Your task to perform on an android device: open sync settings in chrome Image 0: 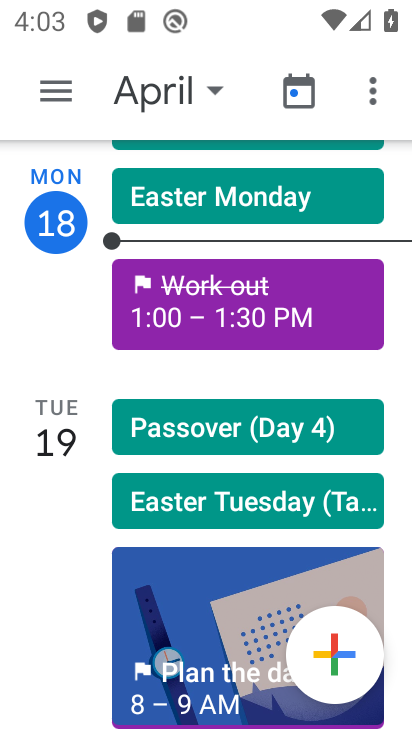
Step 0: press home button
Your task to perform on an android device: open sync settings in chrome Image 1: 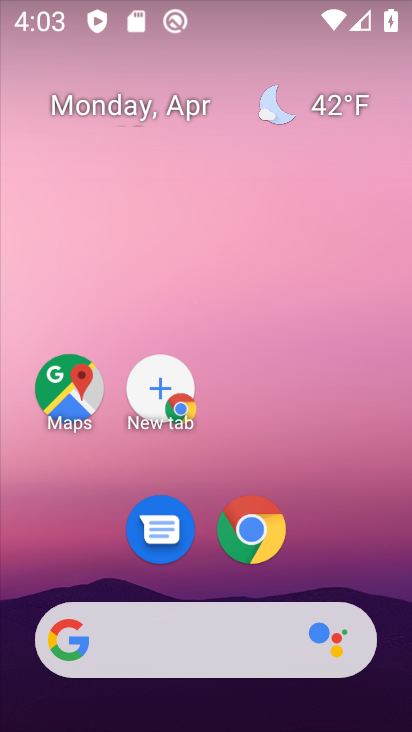
Step 1: click (247, 512)
Your task to perform on an android device: open sync settings in chrome Image 2: 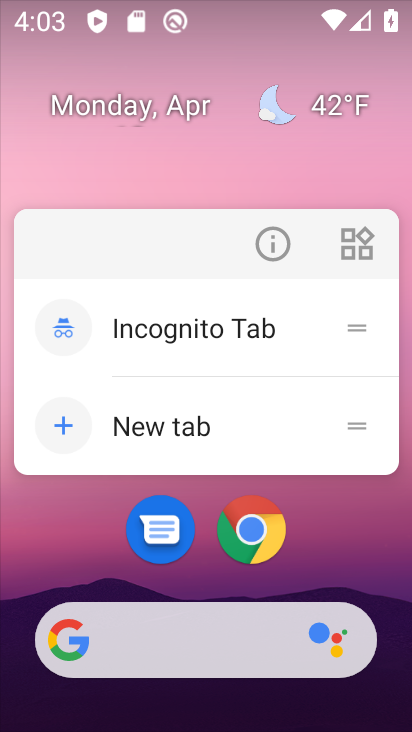
Step 2: click (252, 529)
Your task to perform on an android device: open sync settings in chrome Image 3: 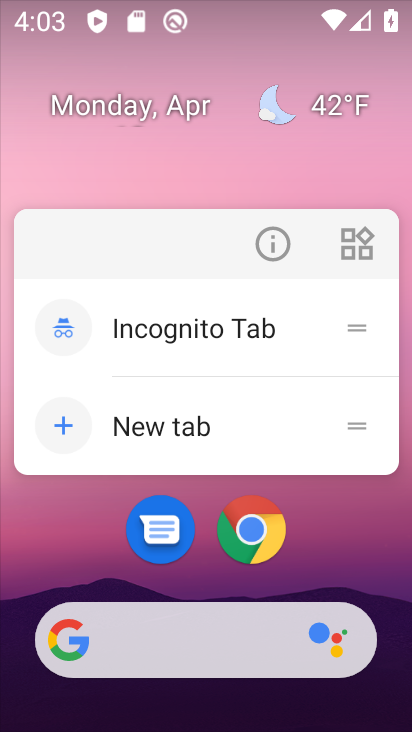
Step 3: click (254, 538)
Your task to perform on an android device: open sync settings in chrome Image 4: 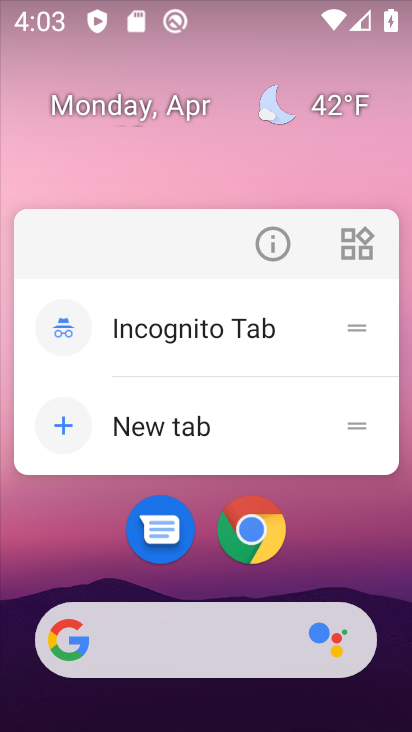
Step 4: click (254, 530)
Your task to perform on an android device: open sync settings in chrome Image 5: 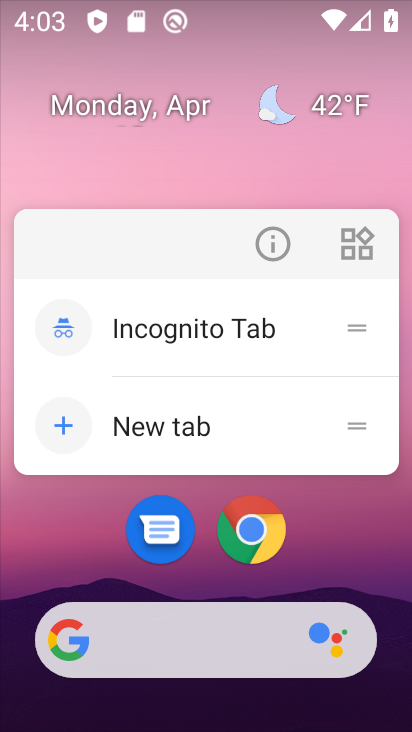
Step 5: click (254, 532)
Your task to perform on an android device: open sync settings in chrome Image 6: 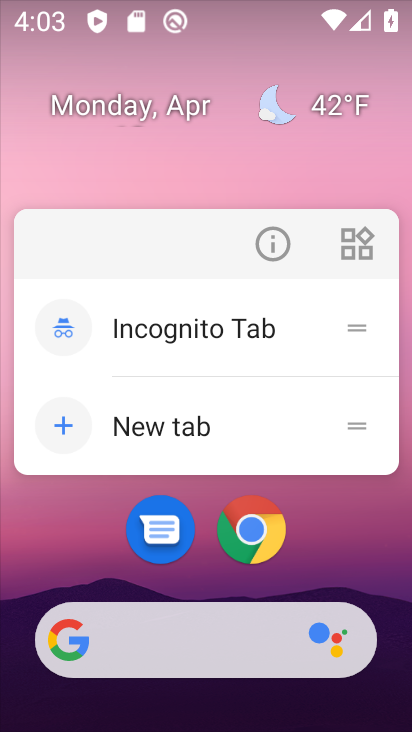
Step 6: click (256, 528)
Your task to perform on an android device: open sync settings in chrome Image 7: 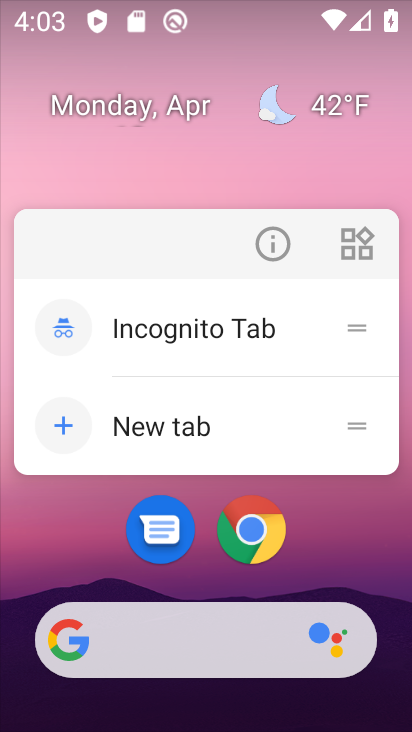
Step 7: click (236, 530)
Your task to perform on an android device: open sync settings in chrome Image 8: 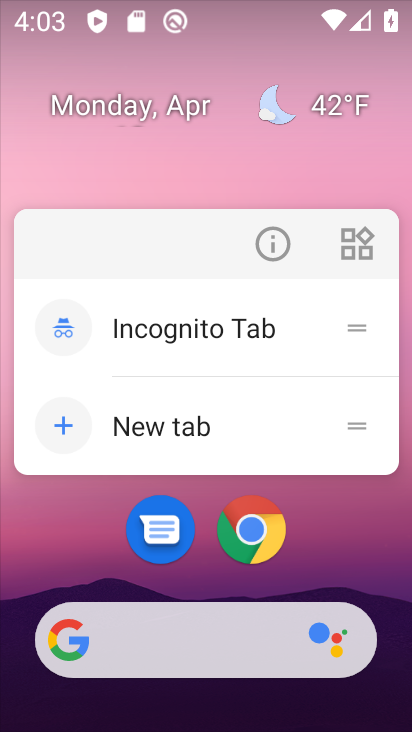
Step 8: click (252, 536)
Your task to perform on an android device: open sync settings in chrome Image 9: 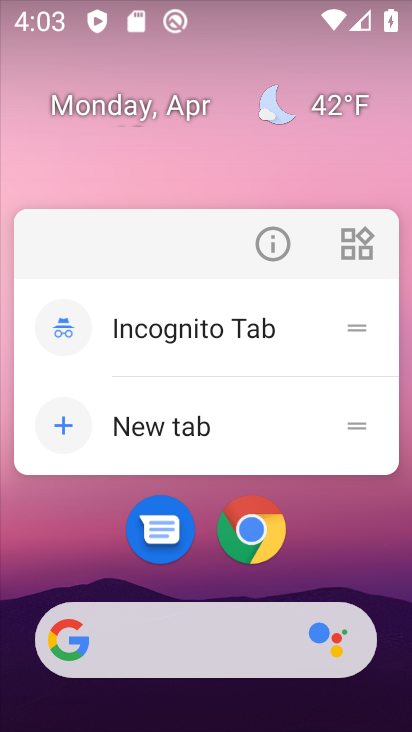
Step 9: click (251, 526)
Your task to perform on an android device: open sync settings in chrome Image 10: 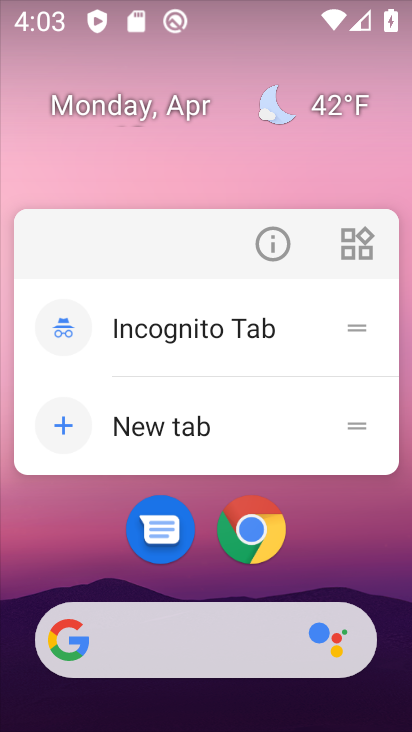
Step 10: click (260, 523)
Your task to perform on an android device: open sync settings in chrome Image 11: 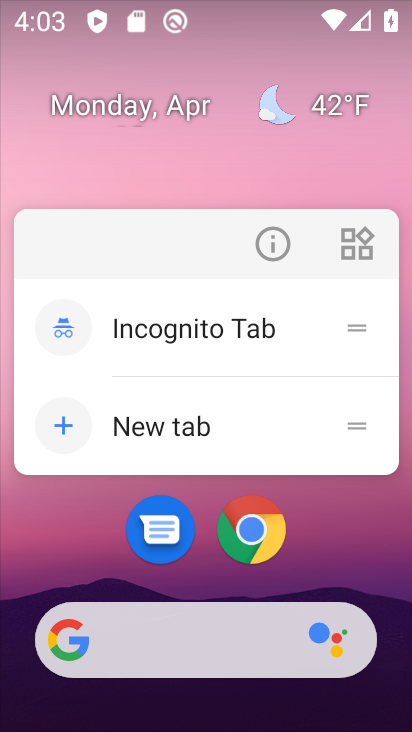
Step 11: click (255, 522)
Your task to perform on an android device: open sync settings in chrome Image 12: 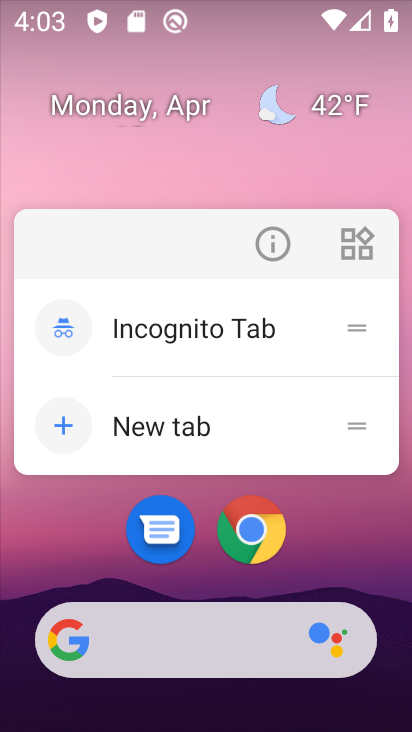
Step 12: click (249, 535)
Your task to perform on an android device: open sync settings in chrome Image 13: 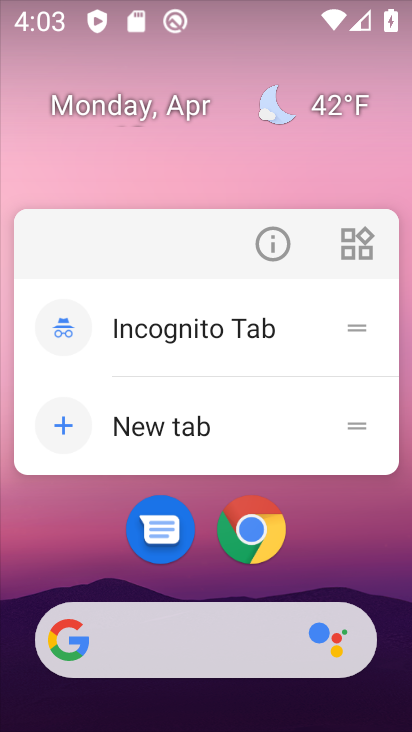
Step 13: click (39, 547)
Your task to perform on an android device: open sync settings in chrome Image 14: 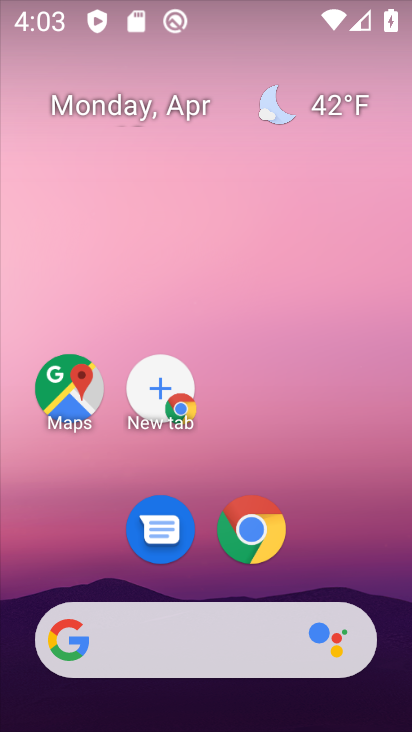
Step 14: drag from (60, 513) to (214, 15)
Your task to perform on an android device: open sync settings in chrome Image 15: 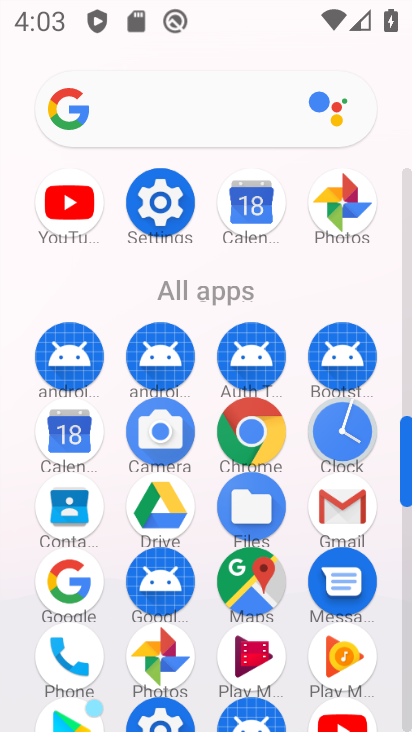
Step 15: click (246, 443)
Your task to perform on an android device: open sync settings in chrome Image 16: 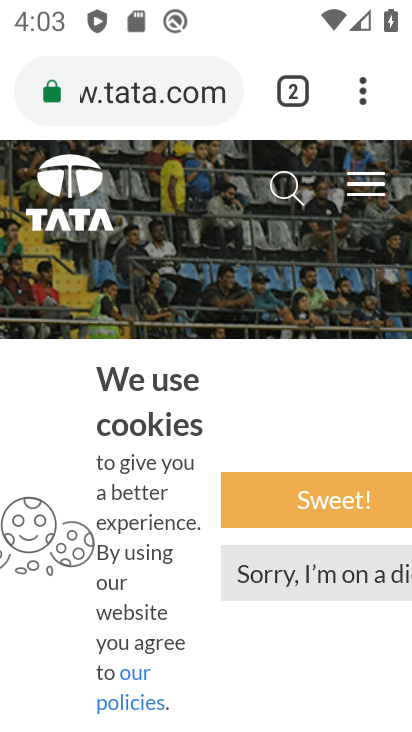
Step 16: click (354, 84)
Your task to perform on an android device: open sync settings in chrome Image 17: 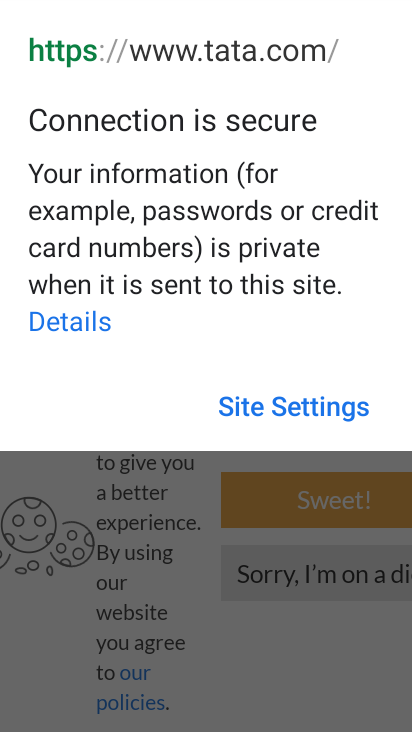
Step 17: click (207, 541)
Your task to perform on an android device: open sync settings in chrome Image 18: 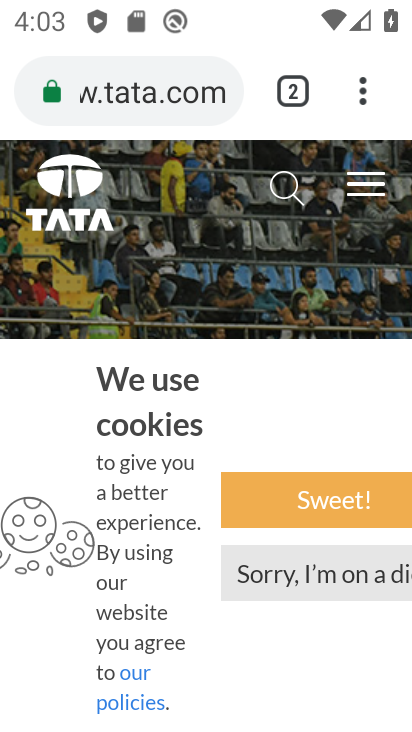
Step 18: click (358, 85)
Your task to perform on an android device: open sync settings in chrome Image 19: 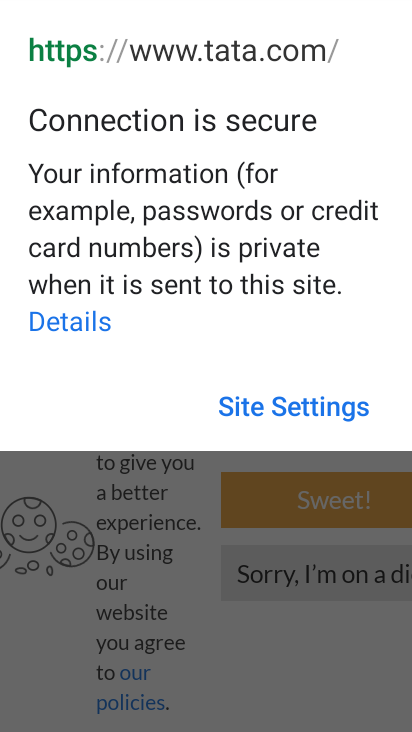
Step 19: click (170, 500)
Your task to perform on an android device: open sync settings in chrome Image 20: 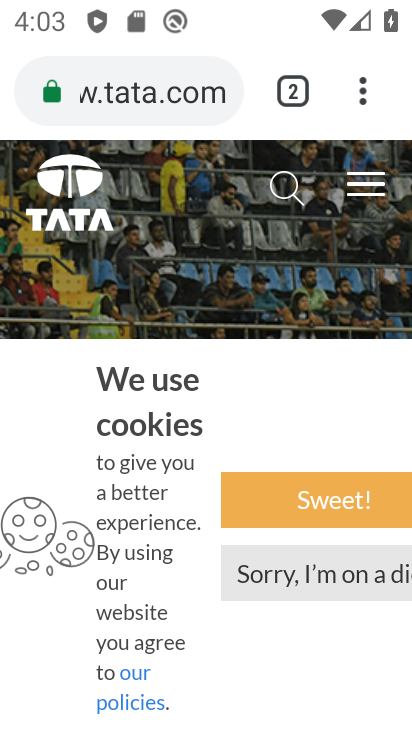
Step 20: click (360, 98)
Your task to perform on an android device: open sync settings in chrome Image 21: 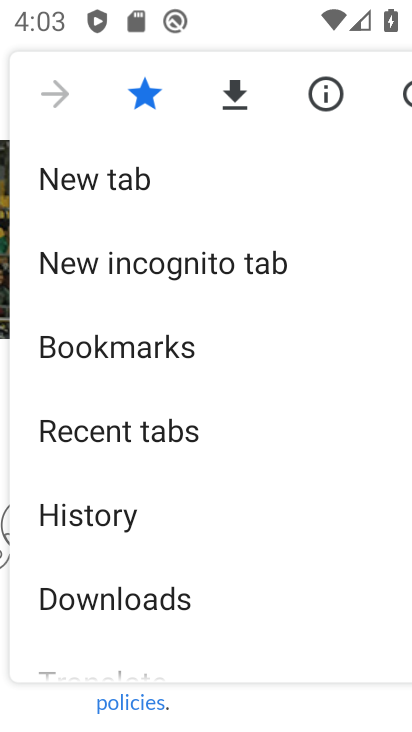
Step 21: drag from (206, 569) to (322, 63)
Your task to perform on an android device: open sync settings in chrome Image 22: 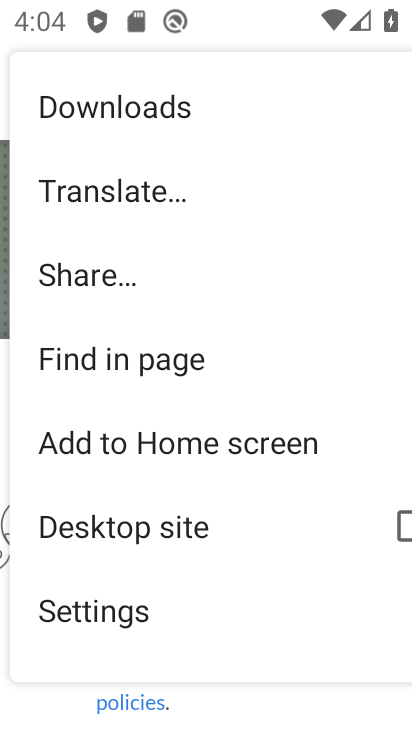
Step 22: click (113, 610)
Your task to perform on an android device: open sync settings in chrome Image 23: 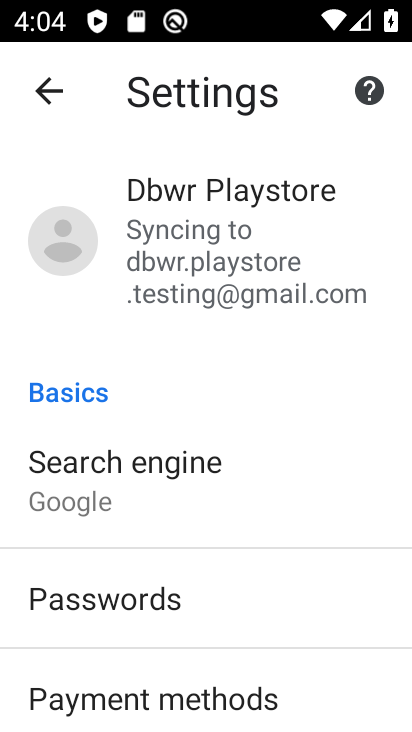
Step 23: click (247, 283)
Your task to perform on an android device: open sync settings in chrome Image 24: 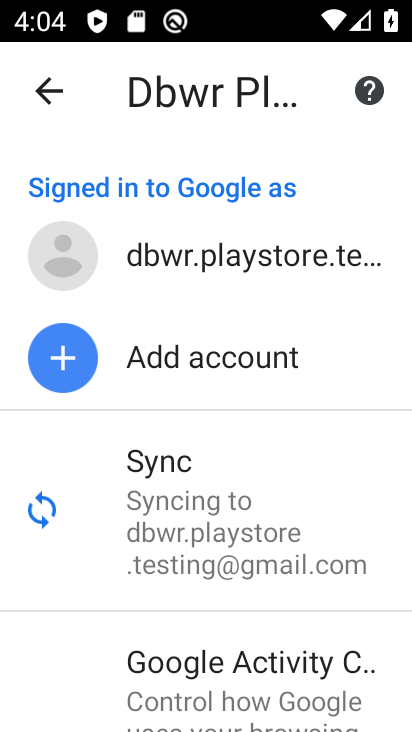
Step 24: task complete